Your task to perform on an android device: open sync settings in chrome Image 0: 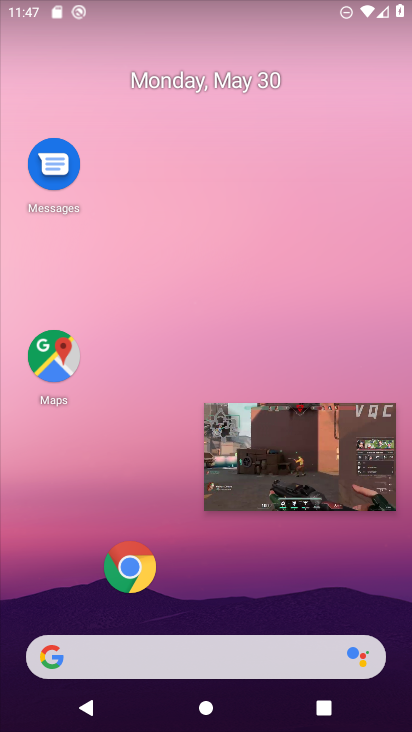
Step 0: click (369, 426)
Your task to perform on an android device: open sync settings in chrome Image 1: 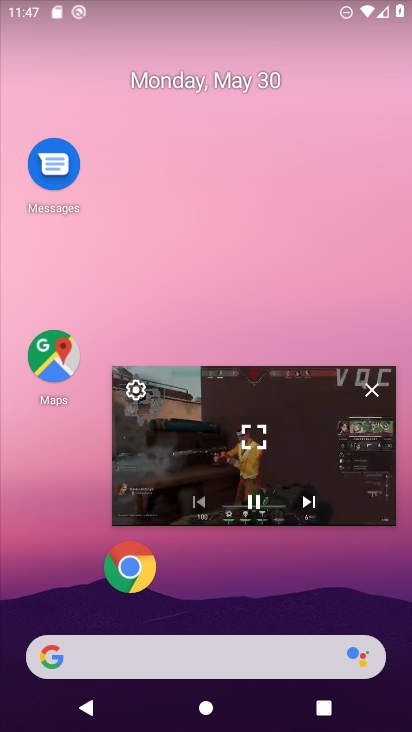
Step 1: click (371, 391)
Your task to perform on an android device: open sync settings in chrome Image 2: 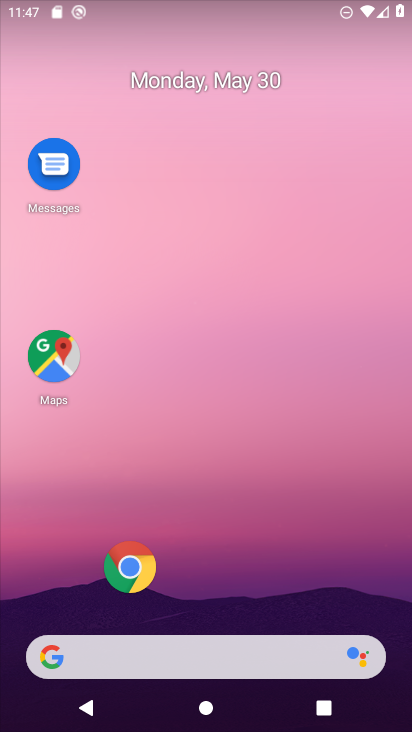
Step 2: drag from (353, 570) to (263, 1)
Your task to perform on an android device: open sync settings in chrome Image 3: 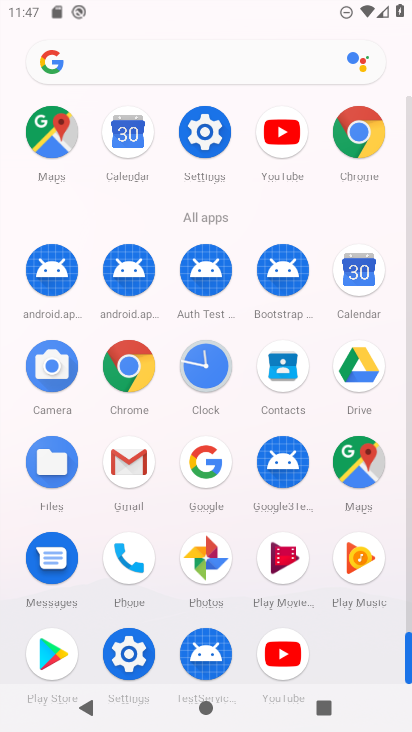
Step 3: drag from (11, 532) to (13, 139)
Your task to perform on an android device: open sync settings in chrome Image 4: 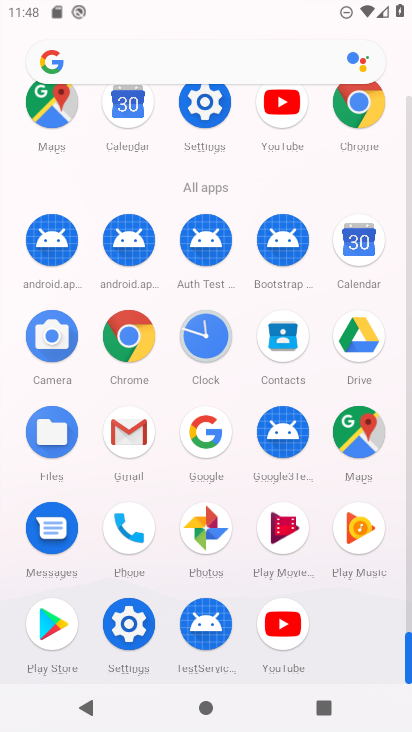
Step 4: click (127, 335)
Your task to perform on an android device: open sync settings in chrome Image 5: 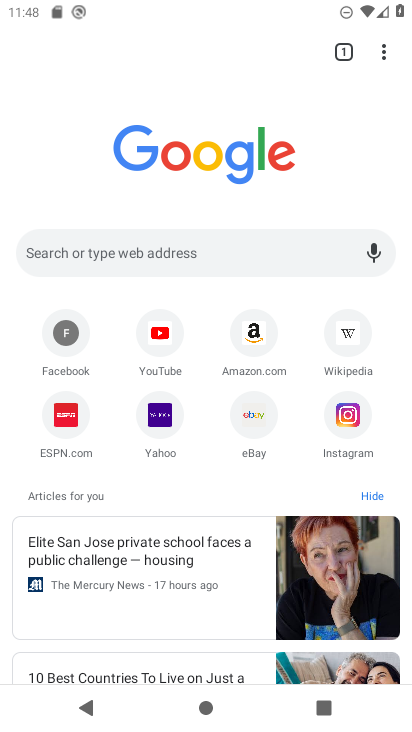
Step 5: drag from (380, 56) to (191, 438)
Your task to perform on an android device: open sync settings in chrome Image 6: 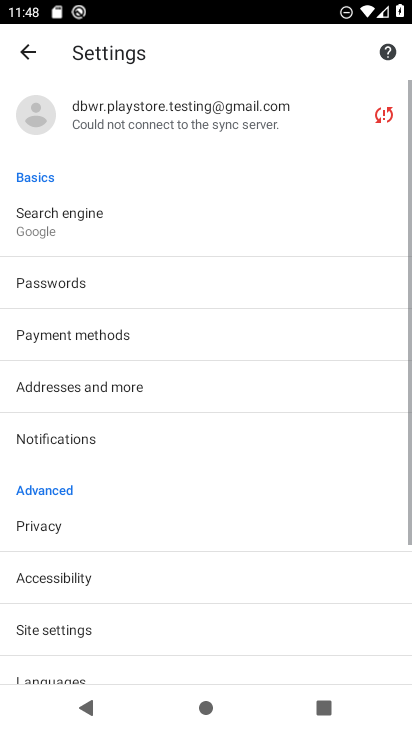
Step 6: click (123, 117)
Your task to perform on an android device: open sync settings in chrome Image 7: 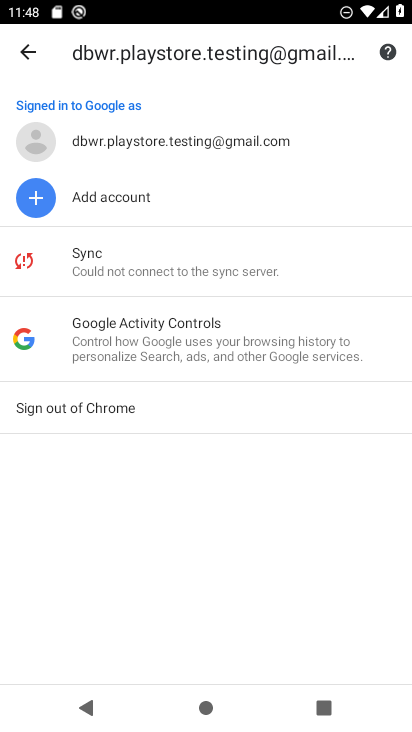
Step 7: click (120, 246)
Your task to perform on an android device: open sync settings in chrome Image 8: 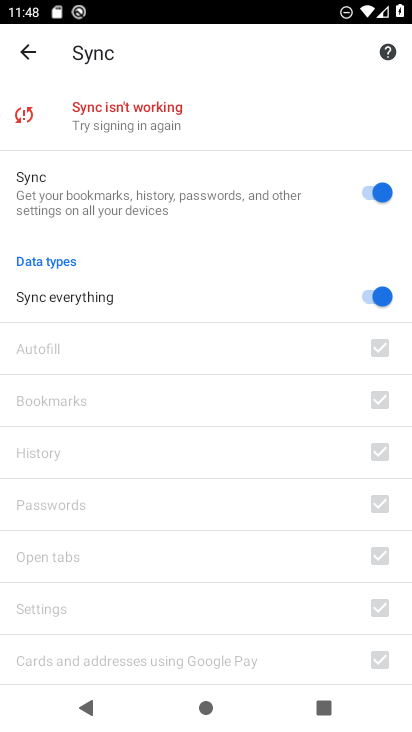
Step 8: task complete